Your task to perform on an android device: Open the map Image 0: 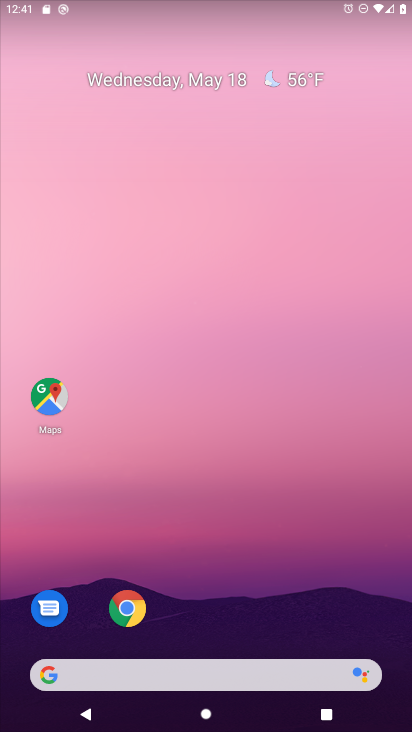
Step 0: drag from (241, 692) to (263, 356)
Your task to perform on an android device: Open the map Image 1: 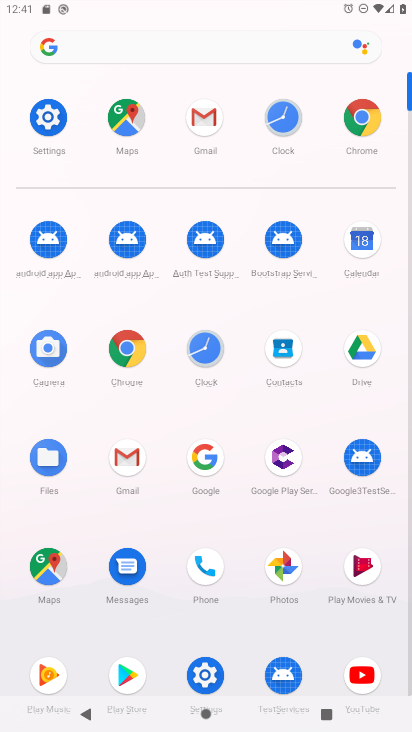
Step 1: click (58, 568)
Your task to perform on an android device: Open the map Image 2: 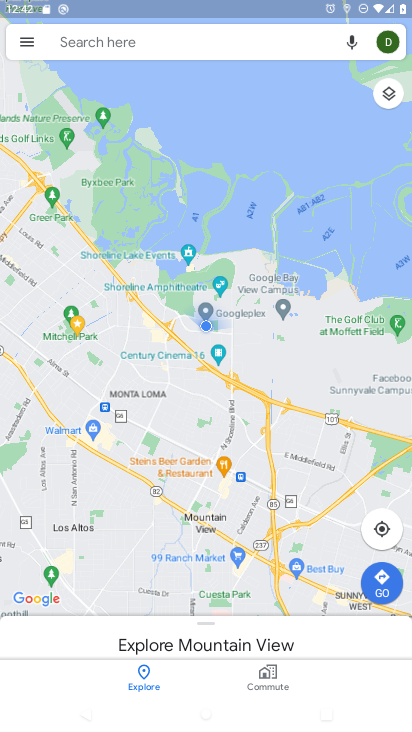
Step 2: task complete